Your task to perform on an android device: check storage Image 0: 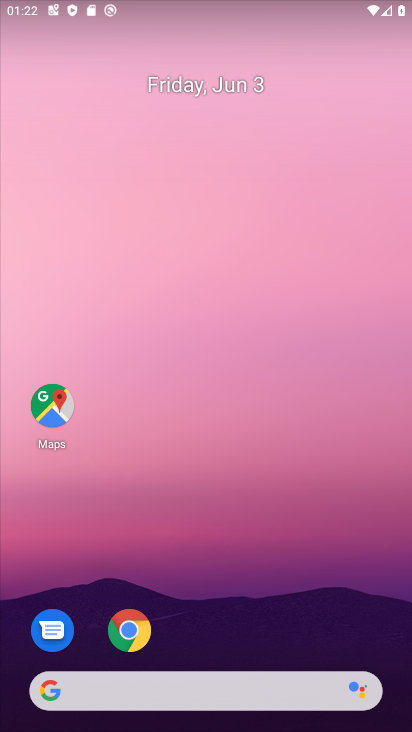
Step 0: drag from (270, 634) to (241, 85)
Your task to perform on an android device: check storage Image 1: 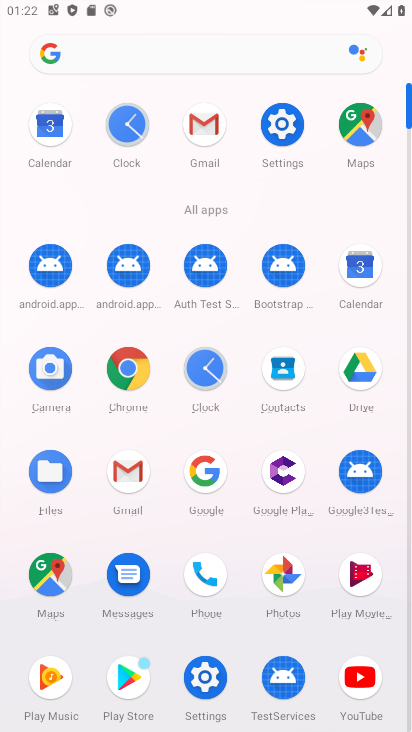
Step 1: click (300, 138)
Your task to perform on an android device: check storage Image 2: 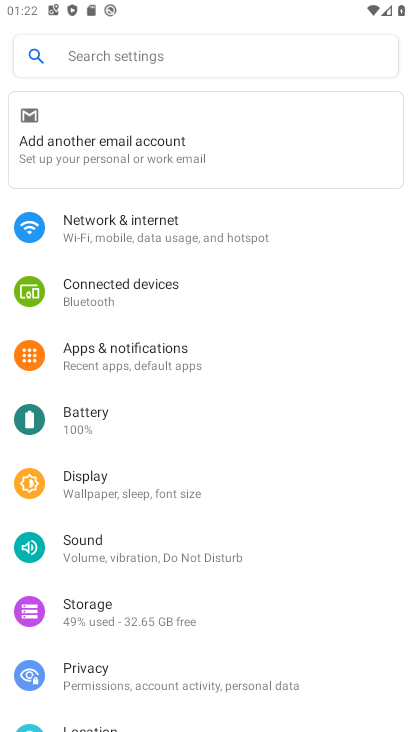
Step 2: click (225, 608)
Your task to perform on an android device: check storage Image 3: 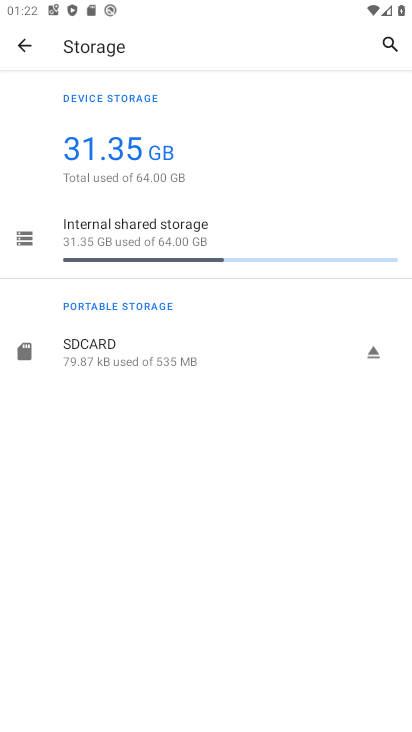
Step 3: task complete